Your task to perform on an android device: Open settings on Google Maps Image 0: 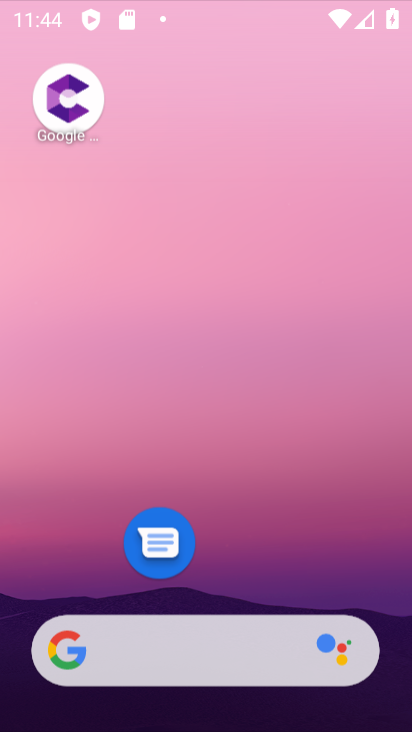
Step 0: click (258, 55)
Your task to perform on an android device: Open settings on Google Maps Image 1: 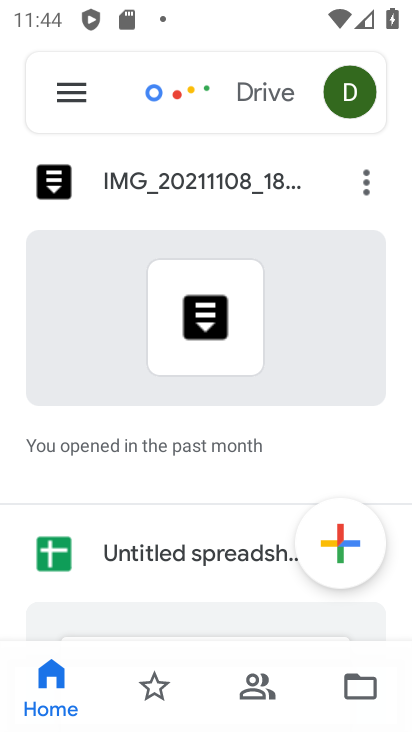
Step 1: press home button
Your task to perform on an android device: Open settings on Google Maps Image 2: 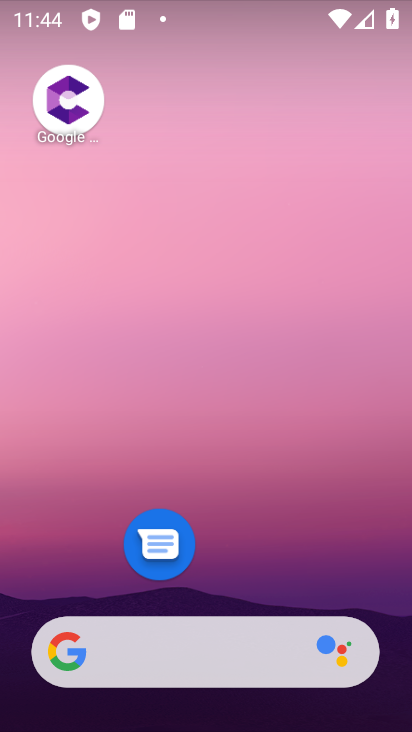
Step 2: drag from (249, 571) to (285, 23)
Your task to perform on an android device: Open settings on Google Maps Image 3: 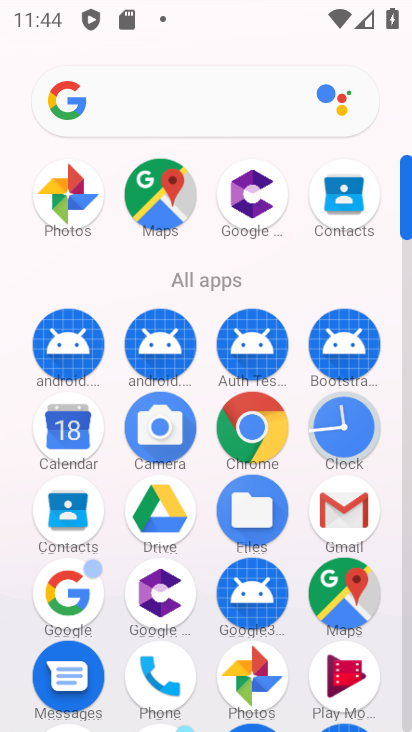
Step 3: click (171, 202)
Your task to perform on an android device: Open settings on Google Maps Image 4: 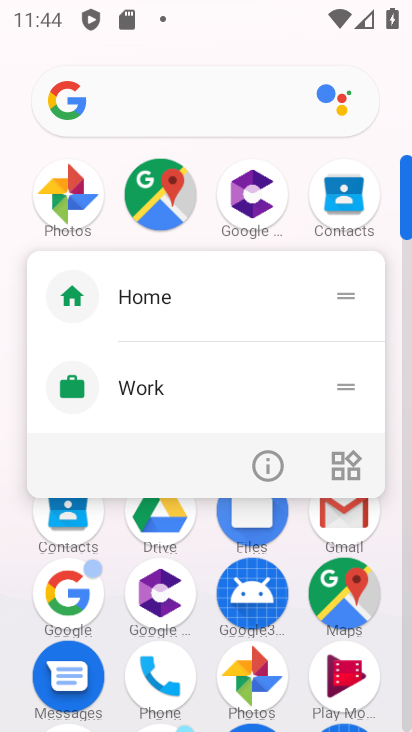
Step 4: click (168, 210)
Your task to perform on an android device: Open settings on Google Maps Image 5: 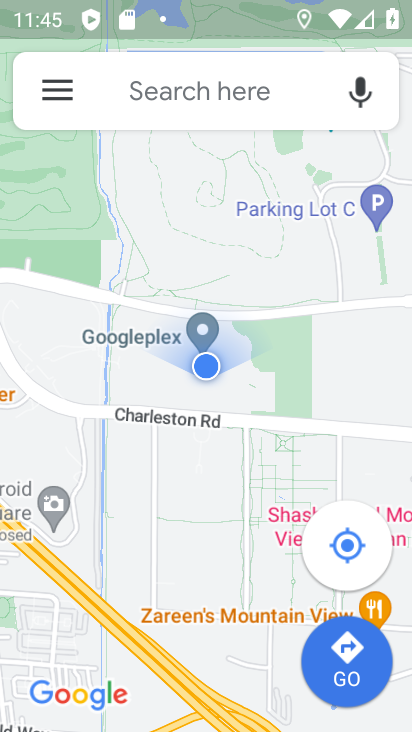
Step 5: click (64, 96)
Your task to perform on an android device: Open settings on Google Maps Image 6: 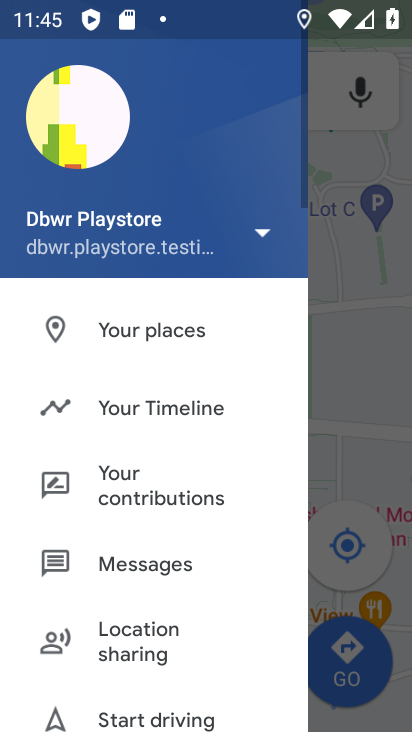
Step 6: drag from (182, 556) to (208, 246)
Your task to perform on an android device: Open settings on Google Maps Image 7: 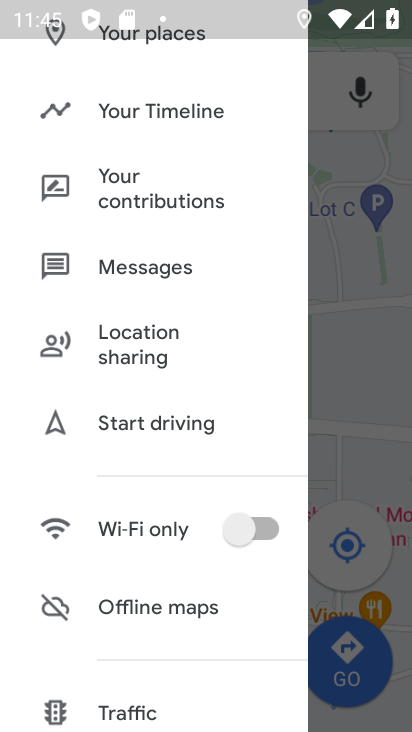
Step 7: drag from (158, 641) to (192, 163)
Your task to perform on an android device: Open settings on Google Maps Image 8: 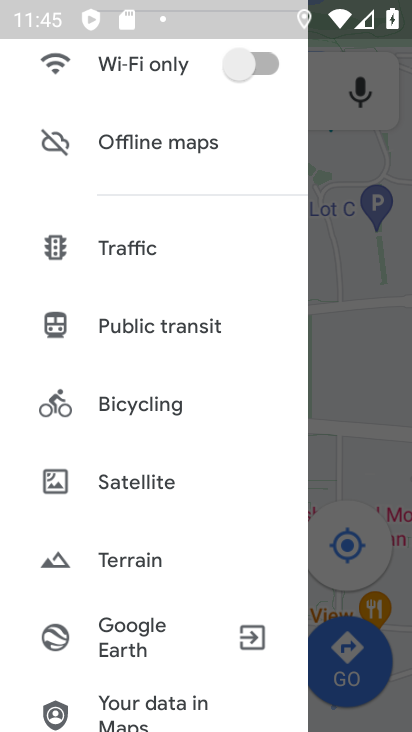
Step 8: drag from (179, 498) to (209, 196)
Your task to perform on an android device: Open settings on Google Maps Image 9: 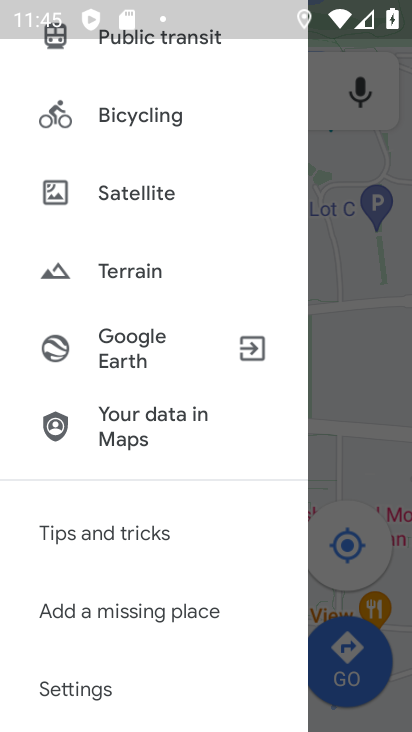
Step 9: click (99, 691)
Your task to perform on an android device: Open settings on Google Maps Image 10: 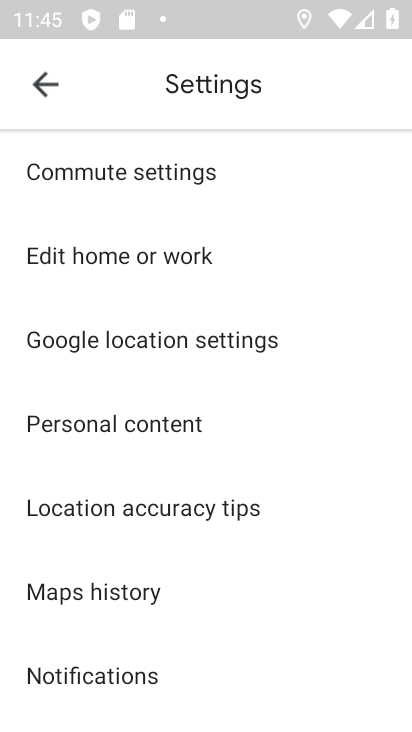
Step 10: task complete